Your task to perform on an android device: Search for razer naga on newegg.com, select the first entry, and add it to the cart. Image 0: 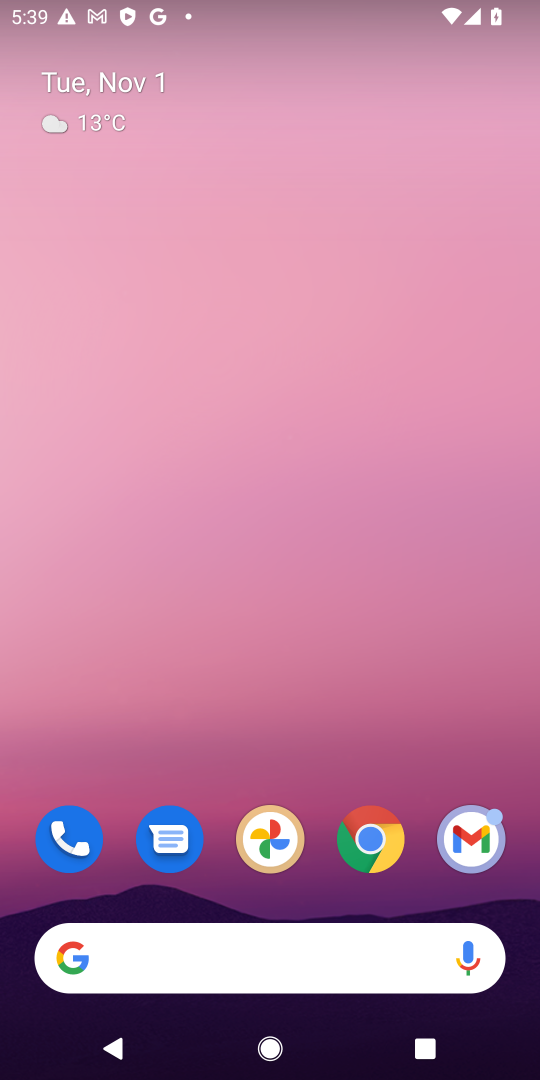
Step 0: drag from (311, 909) to (319, 136)
Your task to perform on an android device: Search for razer naga on newegg.com, select the first entry, and add it to the cart. Image 1: 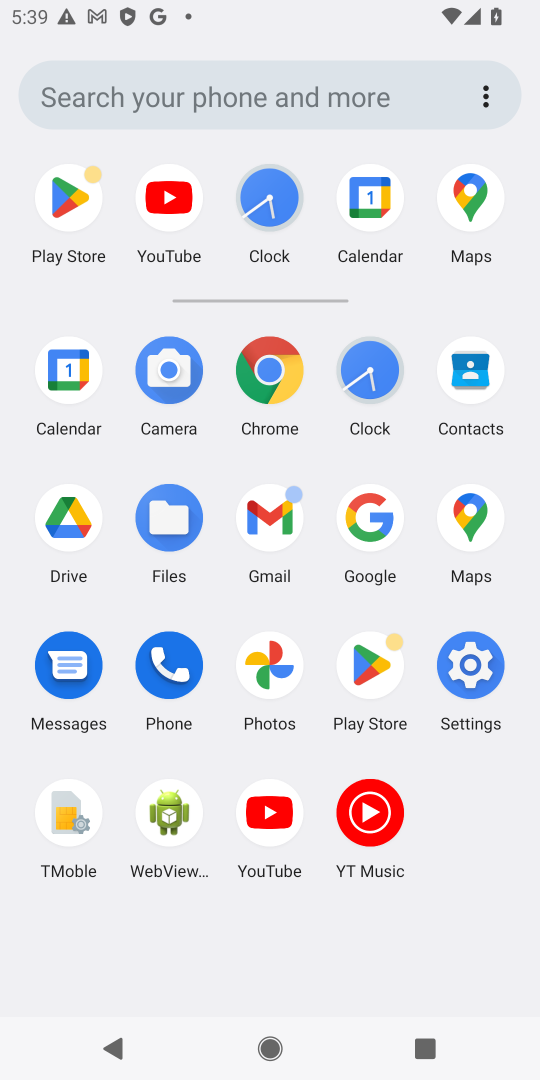
Step 1: click (269, 366)
Your task to perform on an android device: Search for razer naga on newegg.com, select the first entry, and add it to the cart. Image 2: 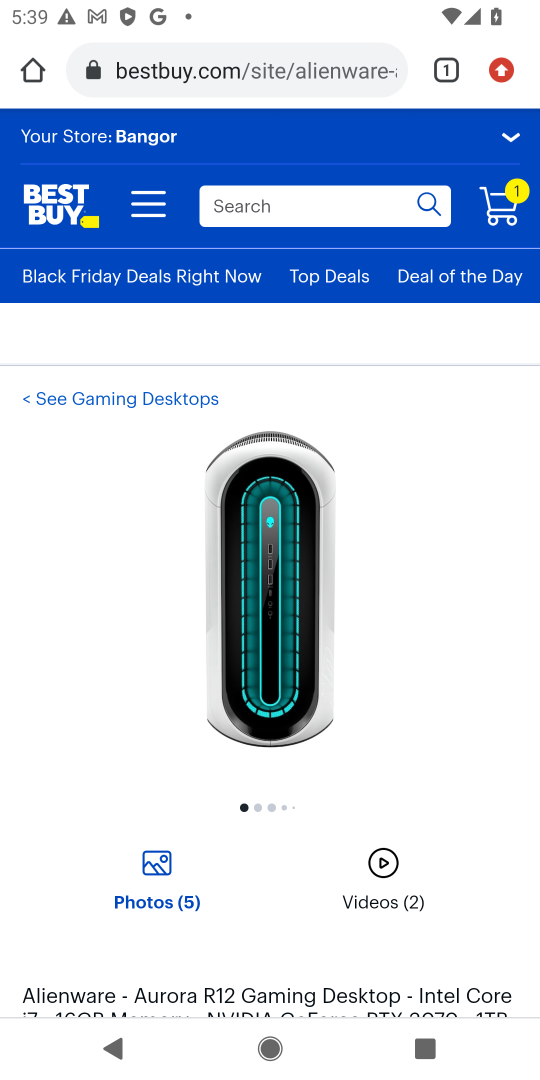
Step 2: click (284, 61)
Your task to perform on an android device: Search for razer naga on newegg.com, select the first entry, and add it to the cart. Image 3: 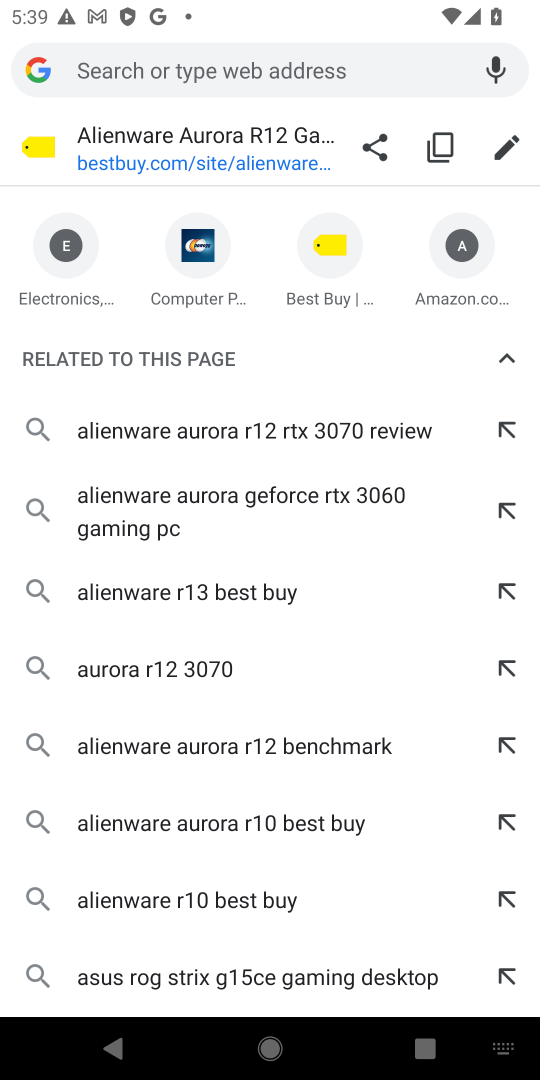
Step 3: type "bestbuy.com"
Your task to perform on an android device: Search for razer naga on newegg.com, select the first entry, and add it to the cart. Image 4: 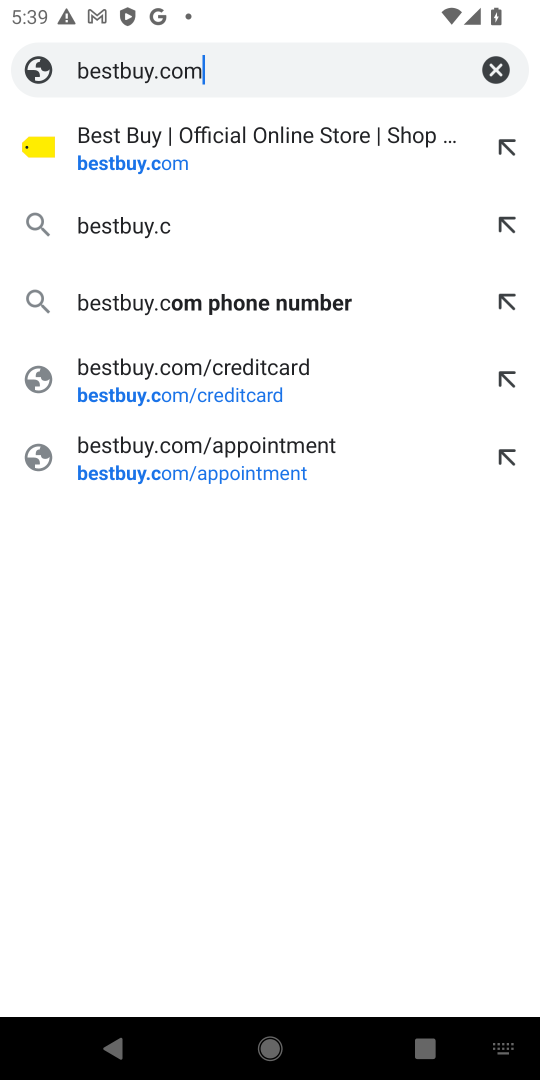
Step 4: press enter
Your task to perform on an android device: Search for razer naga on newegg.com, select the first entry, and add it to the cart. Image 5: 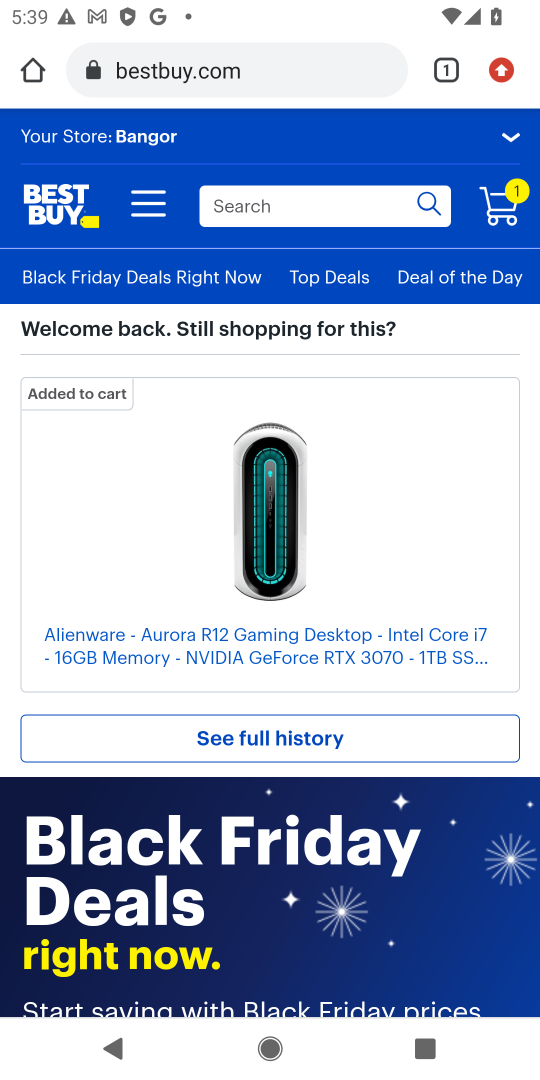
Step 5: click (501, 190)
Your task to perform on an android device: Search for razer naga on newegg.com, select the first entry, and add it to the cart. Image 6: 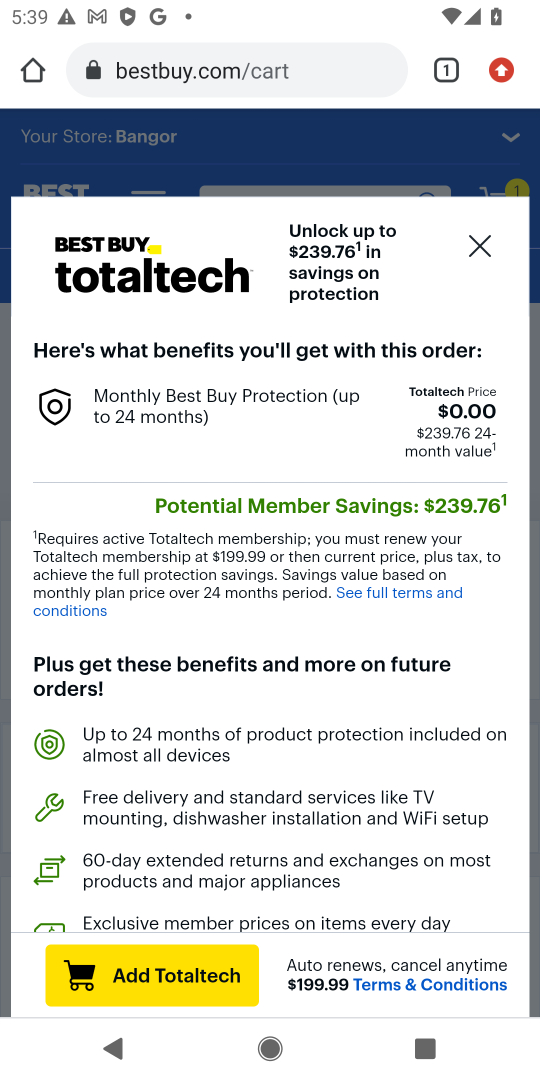
Step 6: click (484, 258)
Your task to perform on an android device: Search for razer naga on newegg.com, select the first entry, and add it to the cart. Image 7: 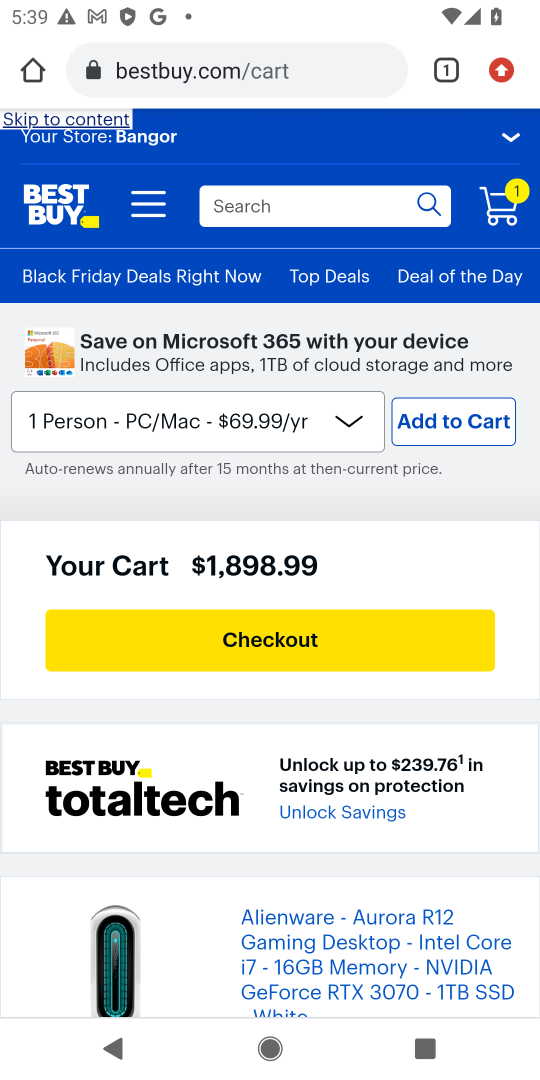
Step 7: drag from (385, 879) to (385, 130)
Your task to perform on an android device: Search for razer naga on newegg.com, select the first entry, and add it to the cart. Image 8: 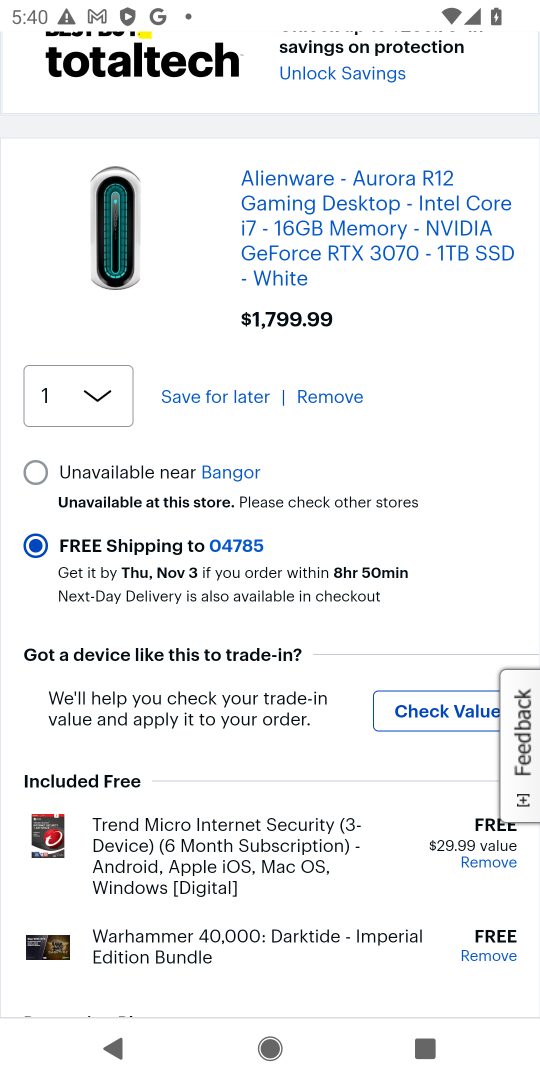
Step 8: drag from (385, 866) to (370, 283)
Your task to perform on an android device: Search for razer naga on newegg.com, select the first entry, and add it to the cart. Image 9: 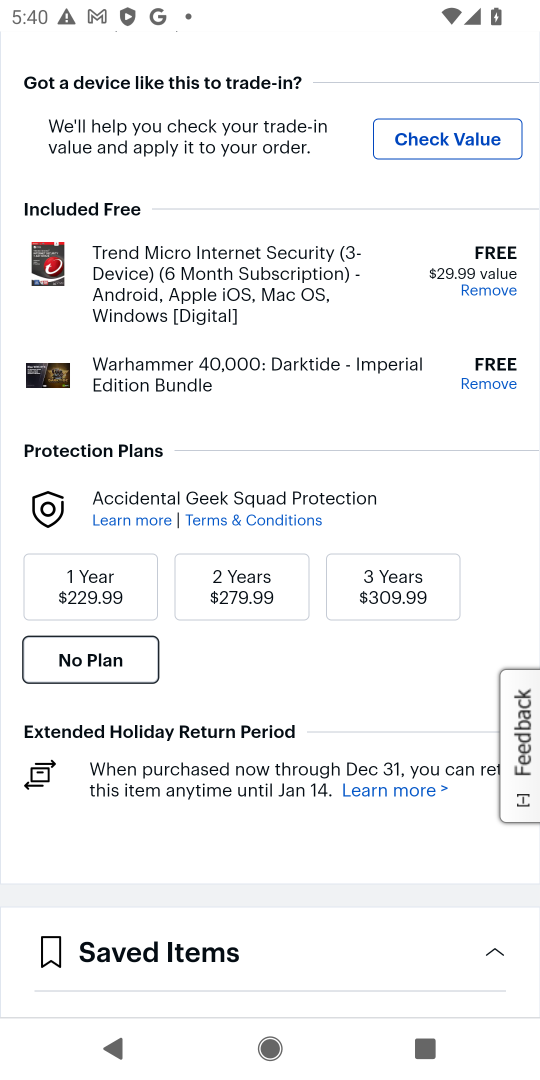
Step 9: drag from (334, 294) to (295, 640)
Your task to perform on an android device: Search for razer naga on newegg.com, select the first entry, and add it to the cart. Image 10: 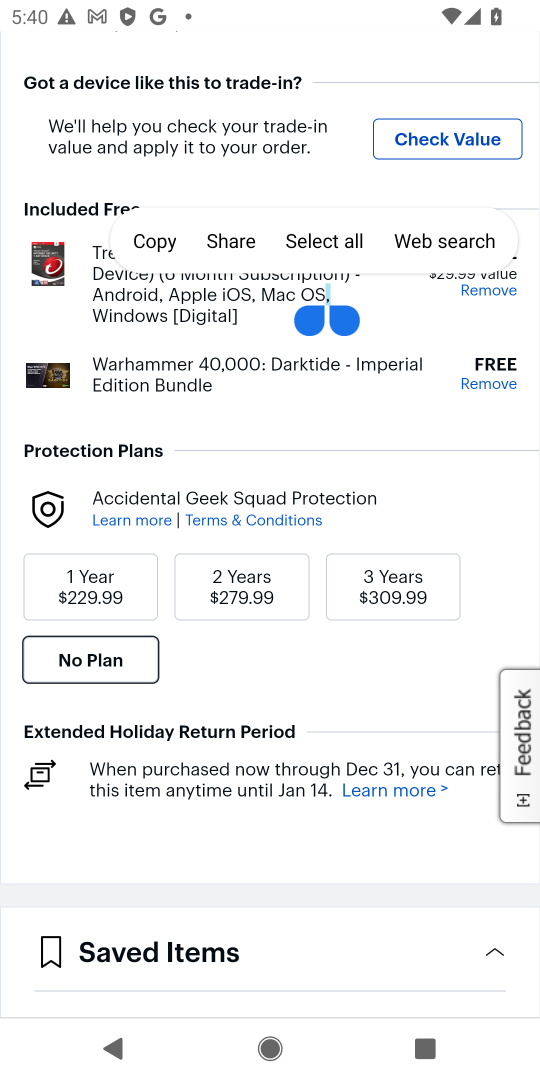
Step 10: drag from (347, 400) to (338, 730)
Your task to perform on an android device: Search for razer naga on newegg.com, select the first entry, and add it to the cart. Image 11: 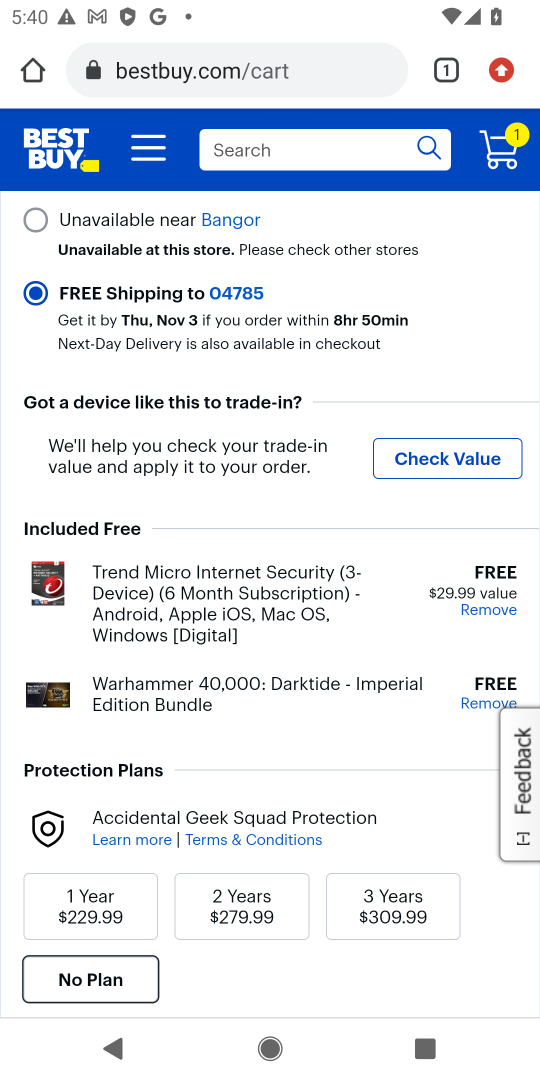
Step 11: click (301, 325)
Your task to perform on an android device: Search for razer naga on newegg.com, select the first entry, and add it to the cart. Image 12: 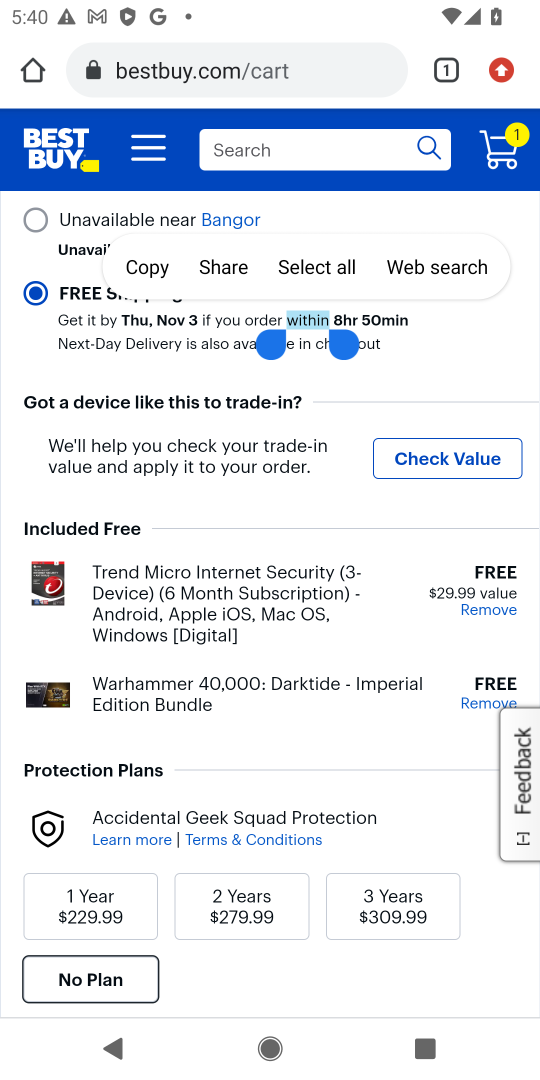
Step 12: drag from (451, 342) to (349, 826)
Your task to perform on an android device: Search for razer naga on newegg.com, select the first entry, and add it to the cart. Image 13: 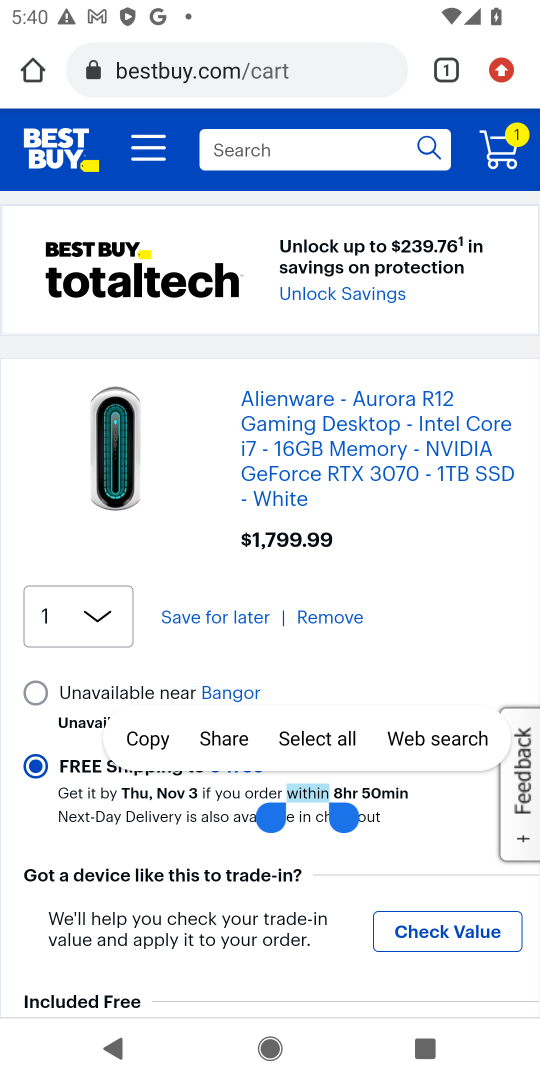
Step 13: click (339, 614)
Your task to perform on an android device: Search for razer naga on newegg.com, select the first entry, and add it to the cart. Image 14: 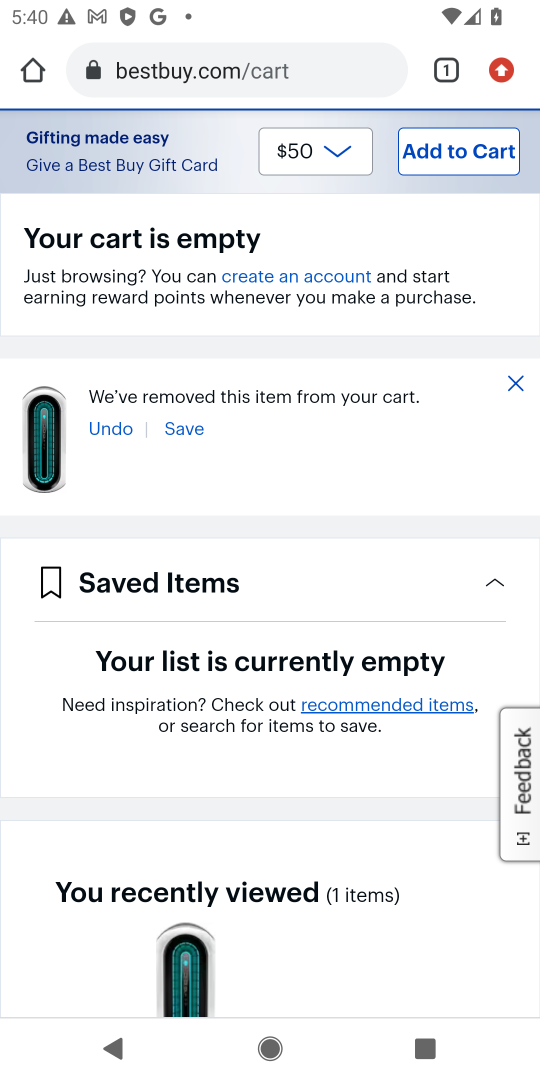
Step 14: drag from (374, 274) to (372, 764)
Your task to perform on an android device: Search for razer naga on newegg.com, select the first entry, and add it to the cart. Image 15: 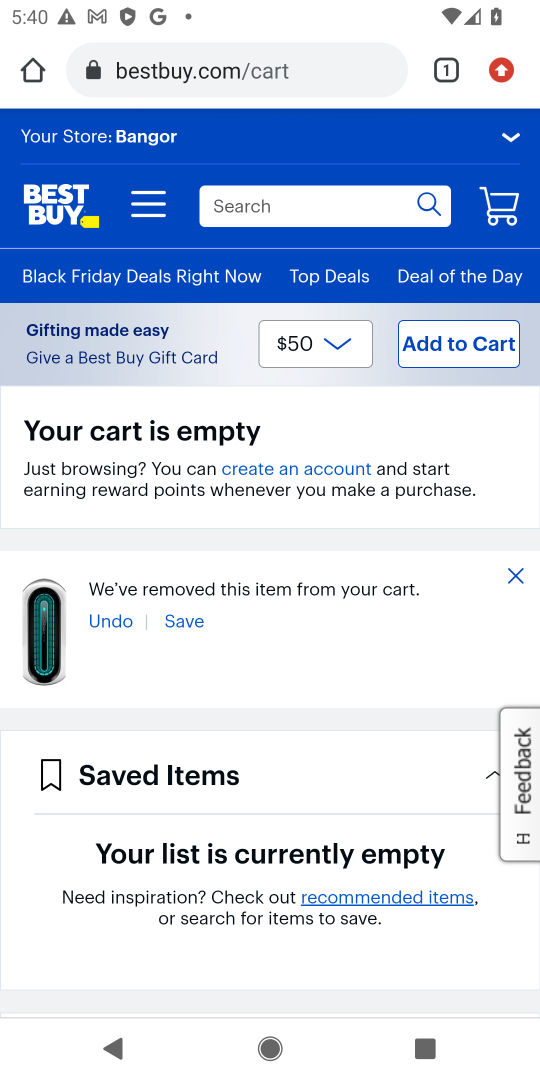
Step 15: click (366, 206)
Your task to perform on an android device: Search for razer naga on newegg.com, select the first entry, and add it to the cart. Image 16: 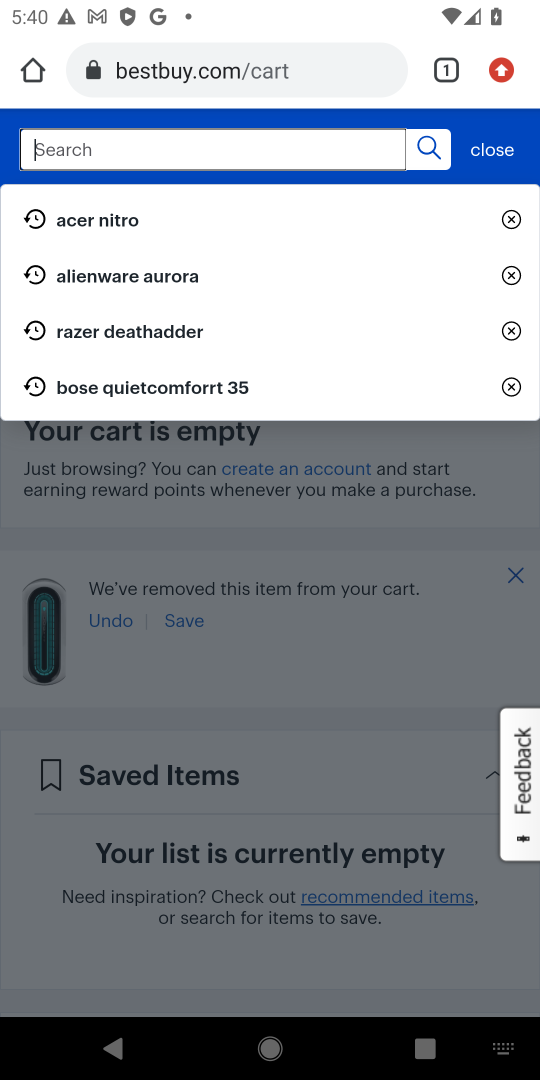
Step 16: type "razer naga"
Your task to perform on an android device: Search for razer naga on newegg.com, select the first entry, and add it to the cart. Image 17: 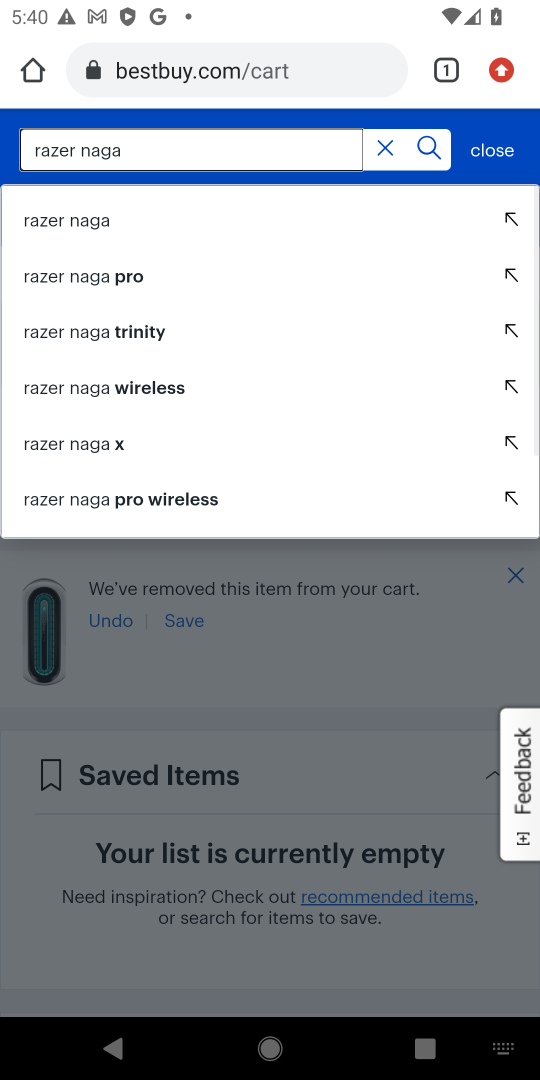
Step 17: press enter
Your task to perform on an android device: Search for razer naga on newegg.com, select the first entry, and add it to the cart. Image 18: 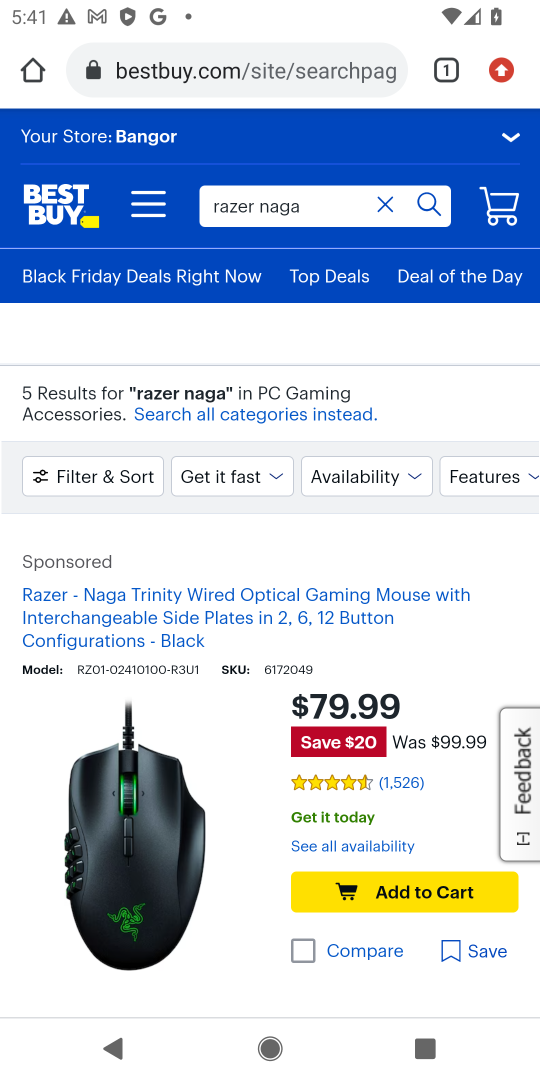
Step 18: drag from (193, 805) to (231, 52)
Your task to perform on an android device: Search for razer naga on newegg.com, select the first entry, and add it to the cart. Image 19: 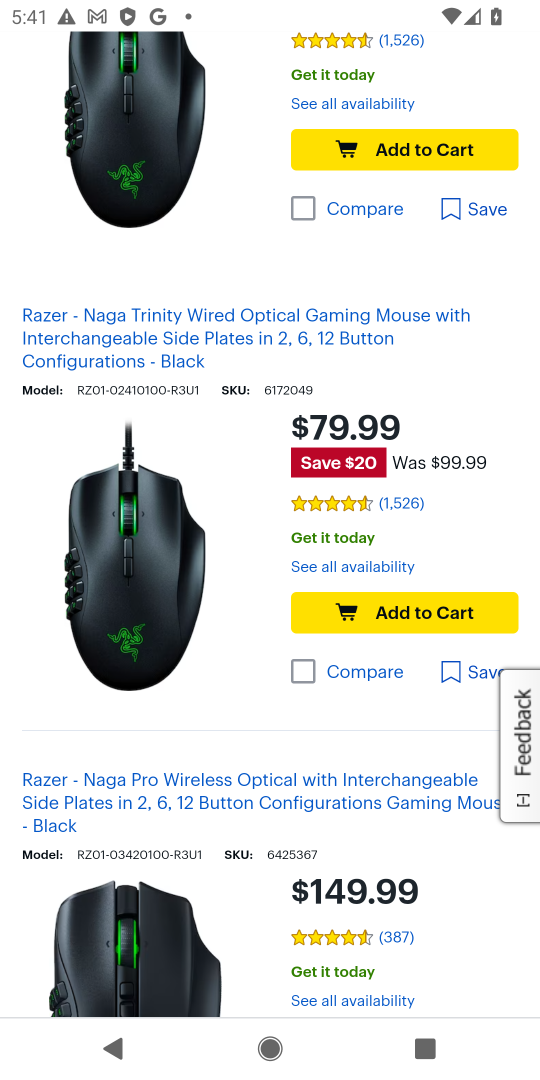
Step 19: drag from (242, 318) to (206, 396)
Your task to perform on an android device: Search for razer naga on newegg.com, select the first entry, and add it to the cart. Image 20: 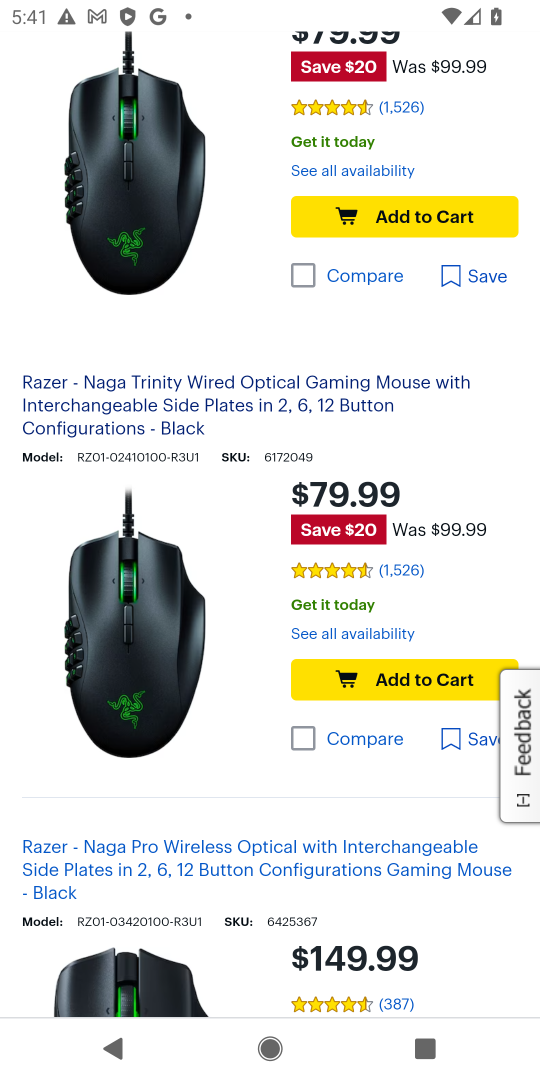
Step 20: drag from (195, 306) to (175, 647)
Your task to perform on an android device: Search for razer naga on newegg.com, select the first entry, and add it to the cart. Image 21: 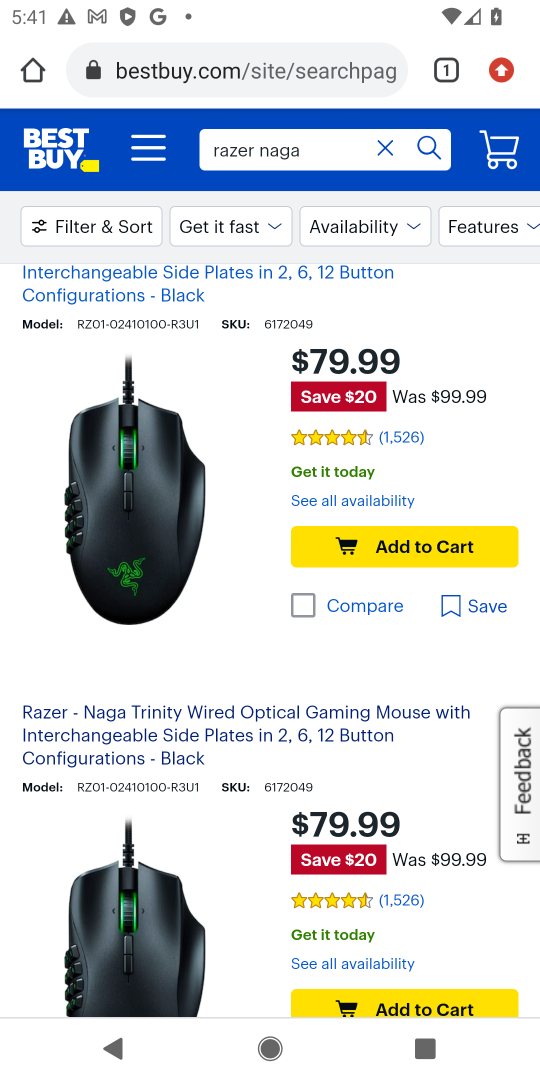
Step 21: click (419, 541)
Your task to perform on an android device: Search for razer naga on newegg.com, select the first entry, and add it to the cart. Image 22: 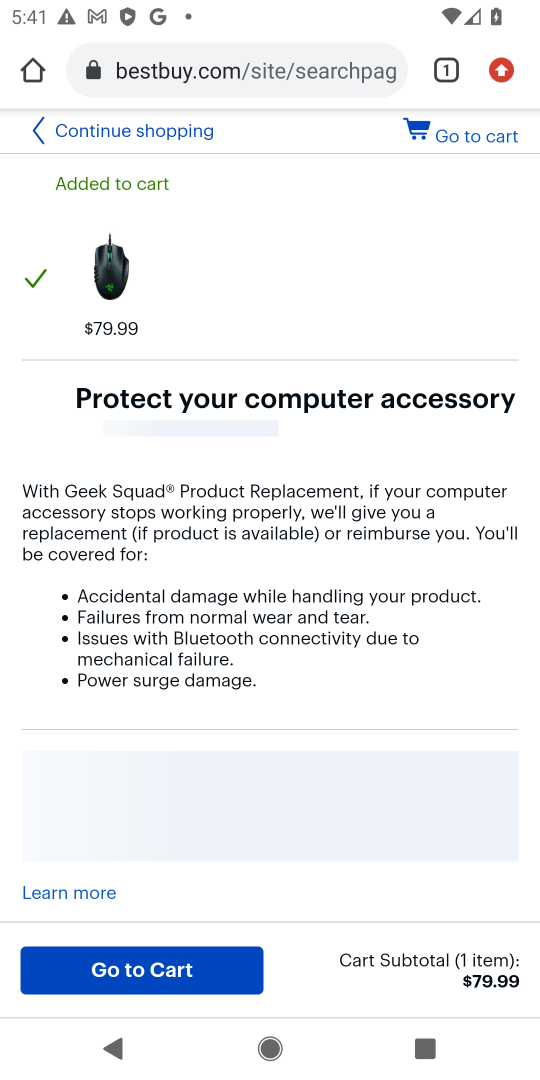
Step 22: task complete